Your task to perform on an android device: turn off improve location accuracy Image 0: 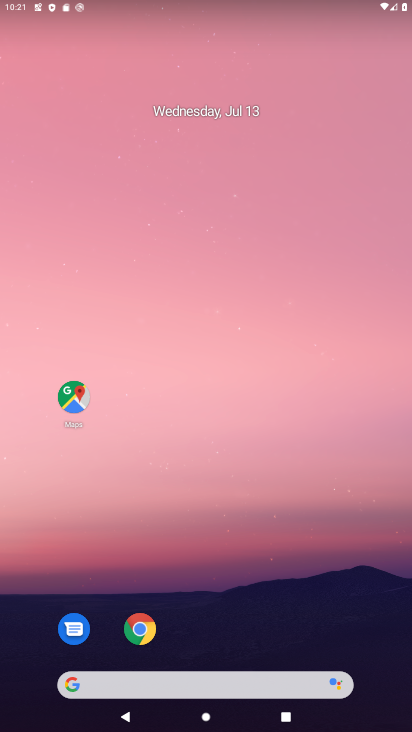
Step 0: drag from (230, 645) to (212, 98)
Your task to perform on an android device: turn off improve location accuracy Image 1: 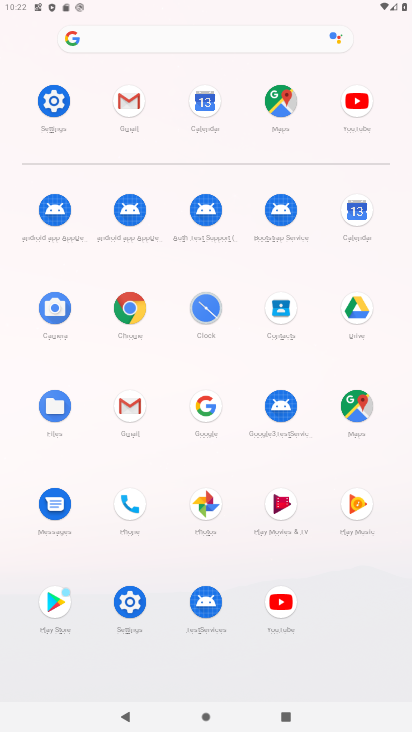
Step 1: click (126, 603)
Your task to perform on an android device: turn off improve location accuracy Image 2: 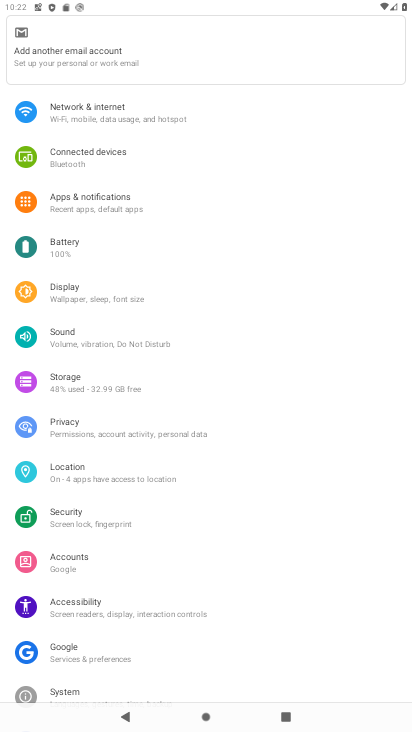
Step 2: click (83, 470)
Your task to perform on an android device: turn off improve location accuracy Image 3: 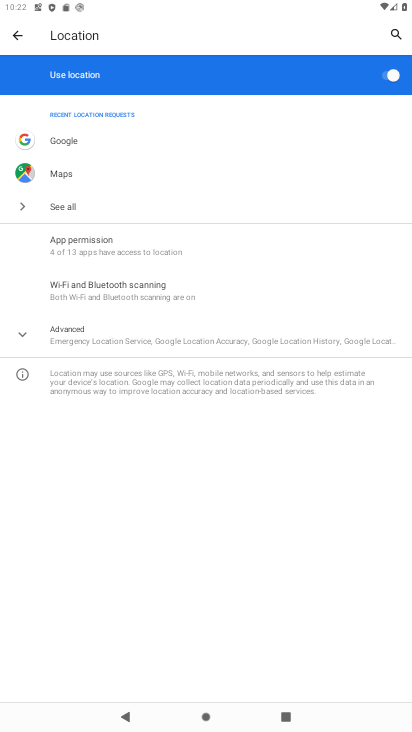
Step 3: click (58, 317)
Your task to perform on an android device: turn off improve location accuracy Image 4: 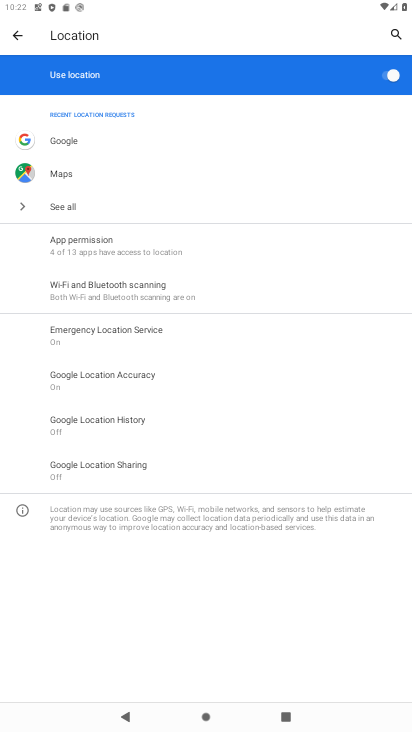
Step 4: click (113, 374)
Your task to perform on an android device: turn off improve location accuracy Image 5: 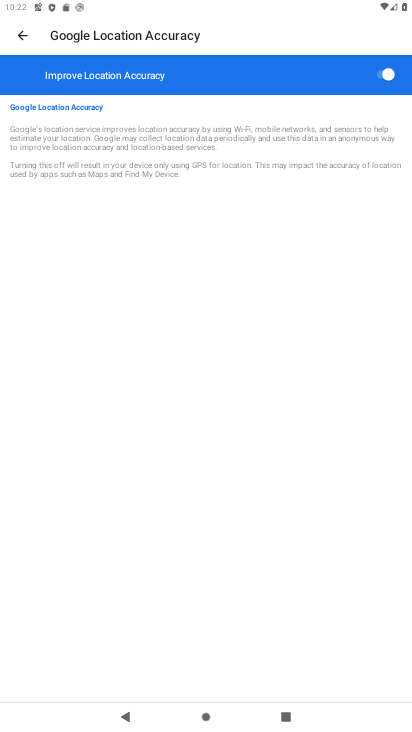
Step 5: click (379, 75)
Your task to perform on an android device: turn off improve location accuracy Image 6: 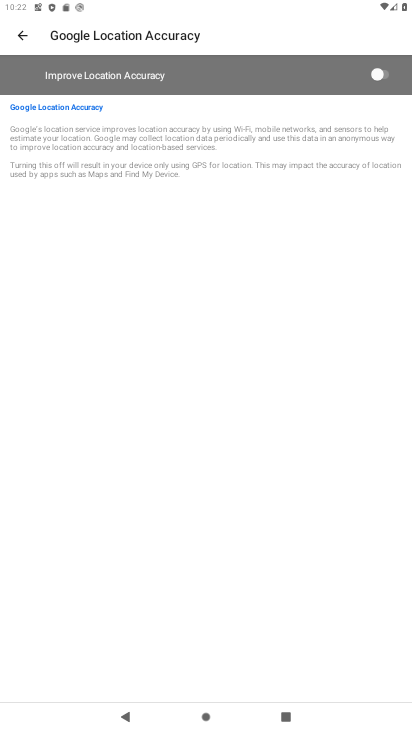
Step 6: task complete